Your task to perform on an android device: Search for sushi restaurants on Maps Image 0: 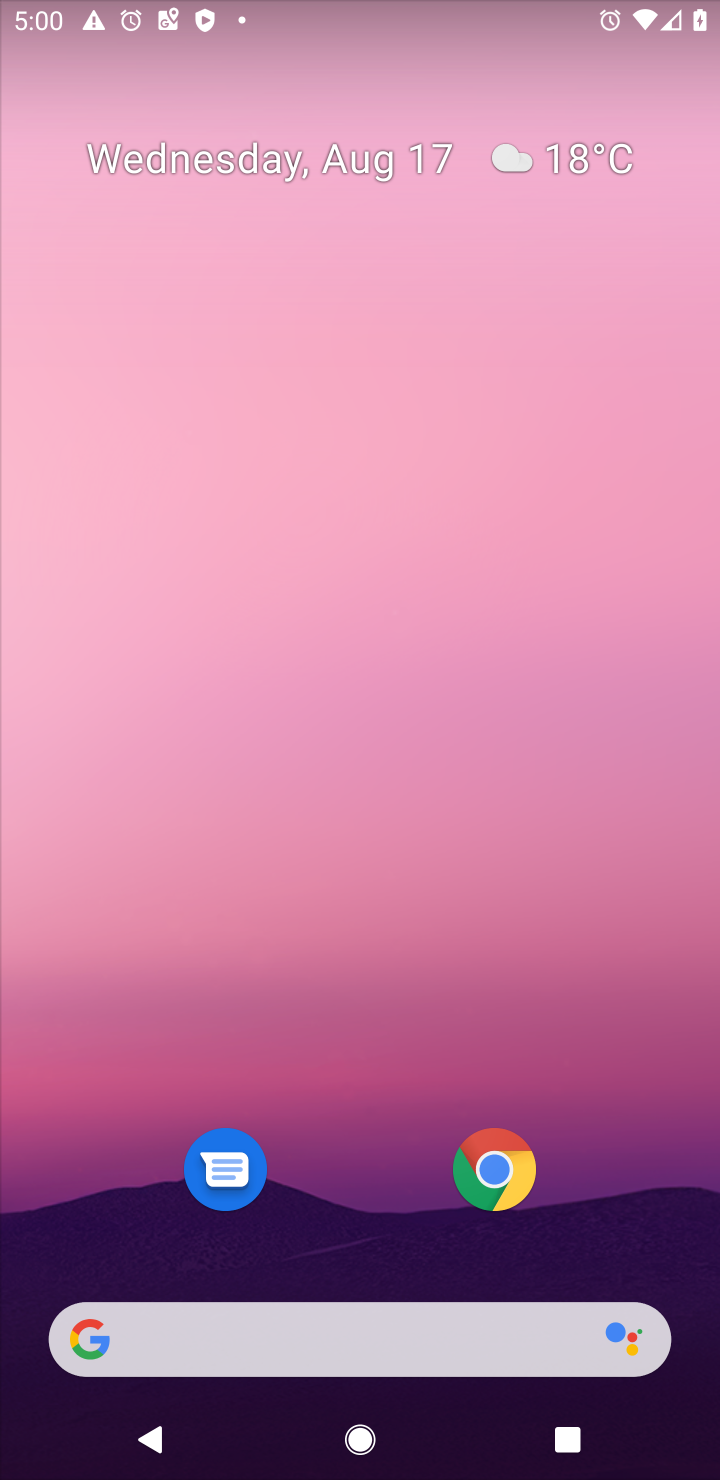
Step 0: press home button
Your task to perform on an android device: Search for sushi restaurants on Maps Image 1: 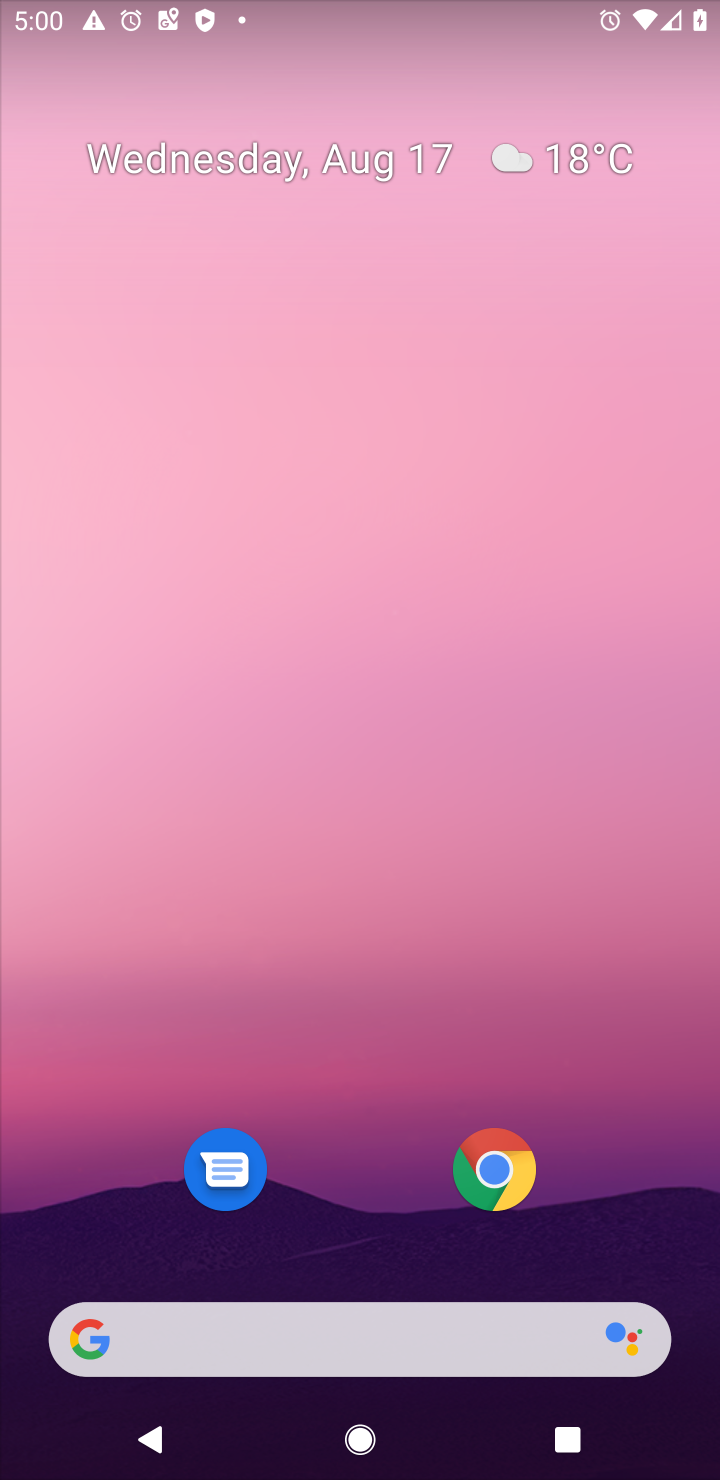
Step 1: drag from (362, 1075) to (407, 120)
Your task to perform on an android device: Search for sushi restaurants on Maps Image 2: 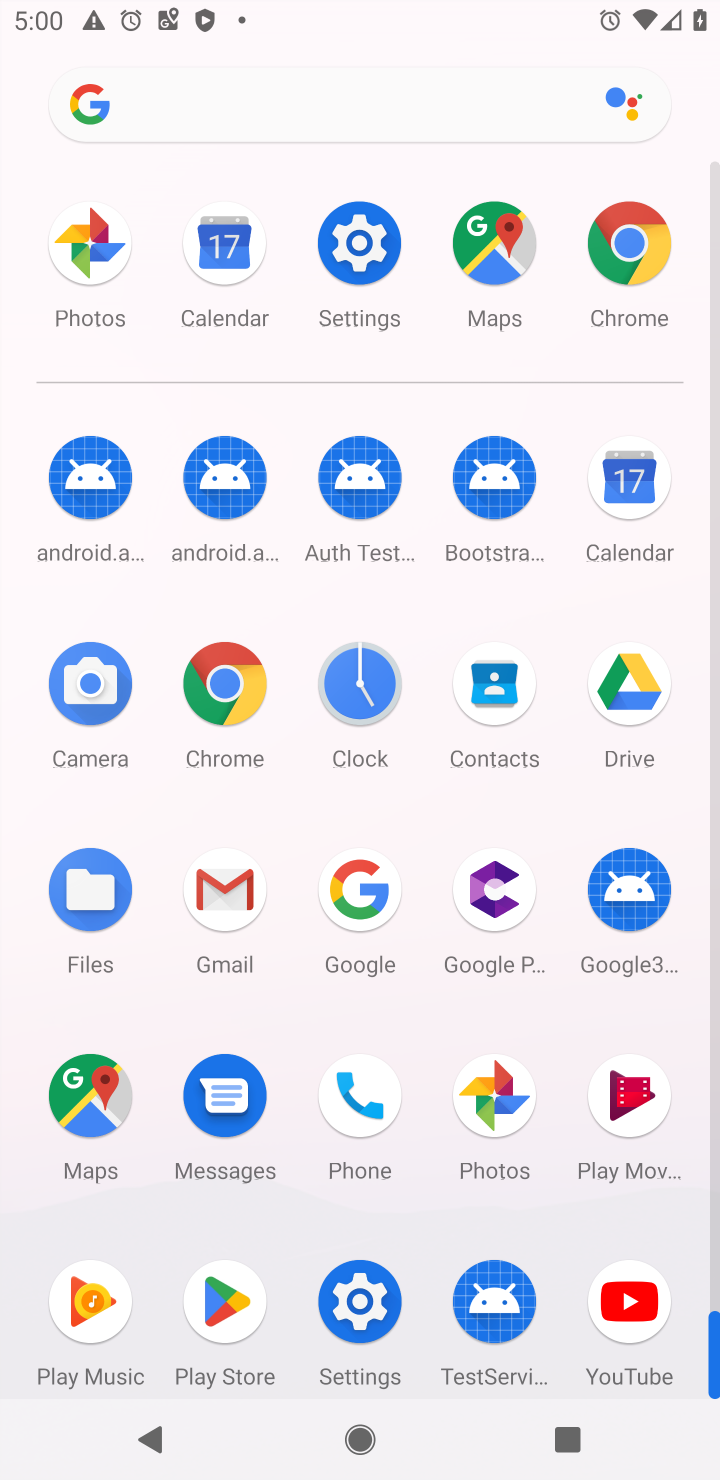
Step 2: click (59, 1089)
Your task to perform on an android device: Search for sushi restaurants on Maps Image 3: 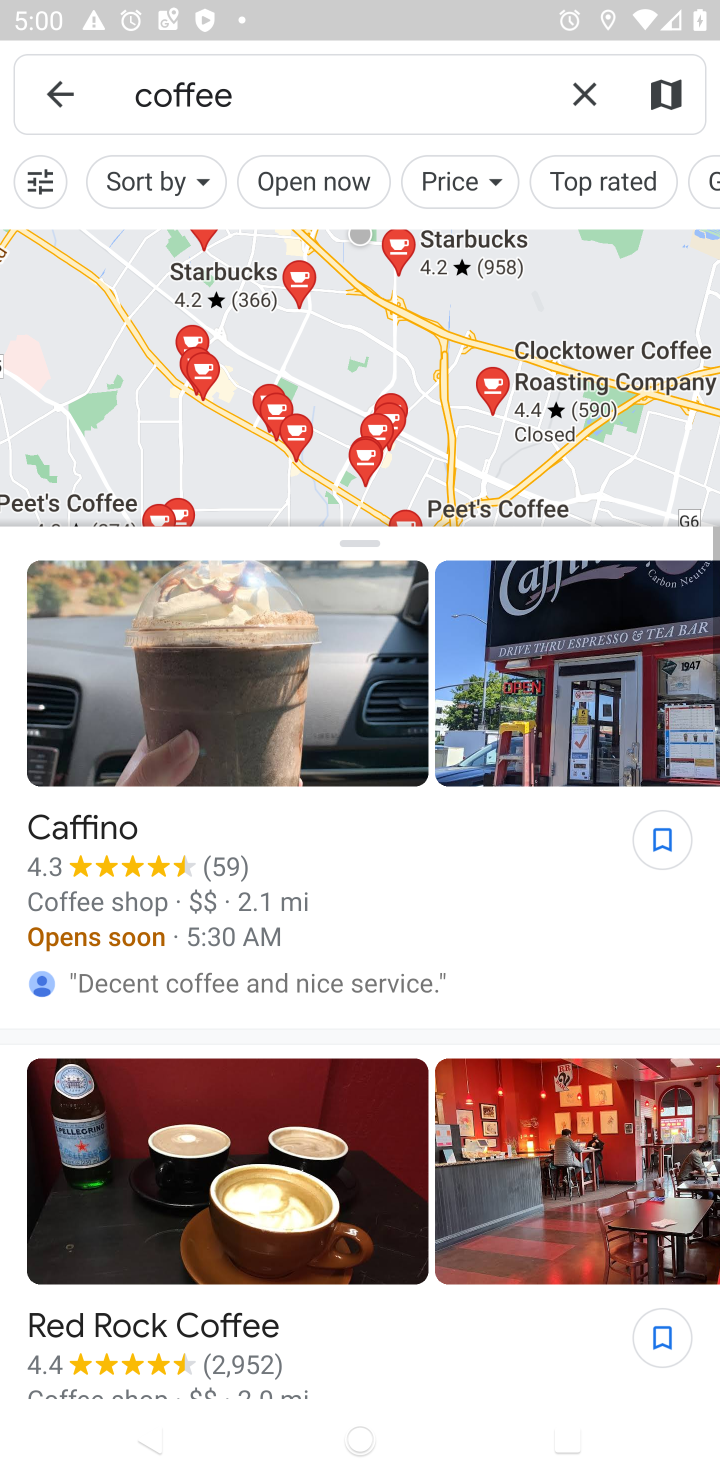
Step 3: click (593, 90)
Your task to perform on an android device: Search for sushi restaurants on Maps Image 4: 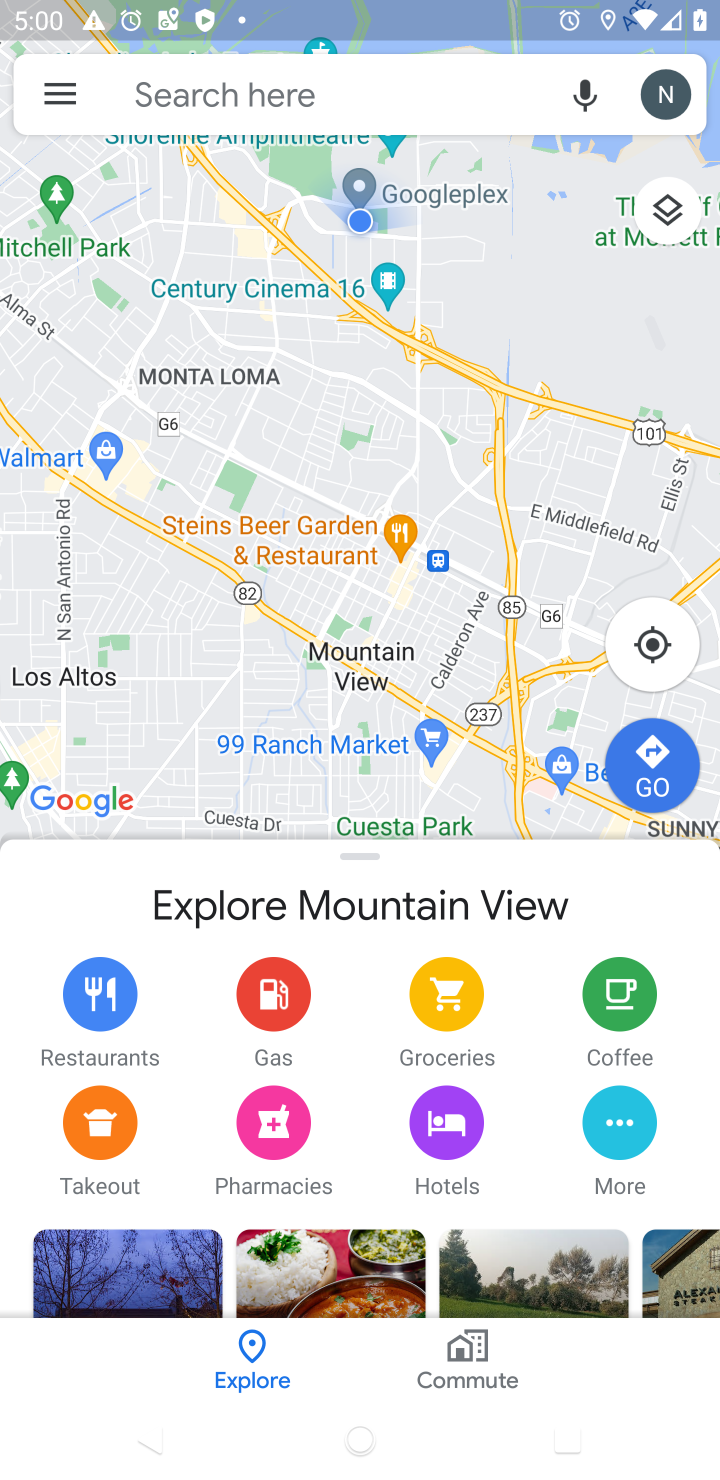
Step 4: click (269, 82)
Your task to perform on an android device: Search for sushi restaurants on Maps Image 5: 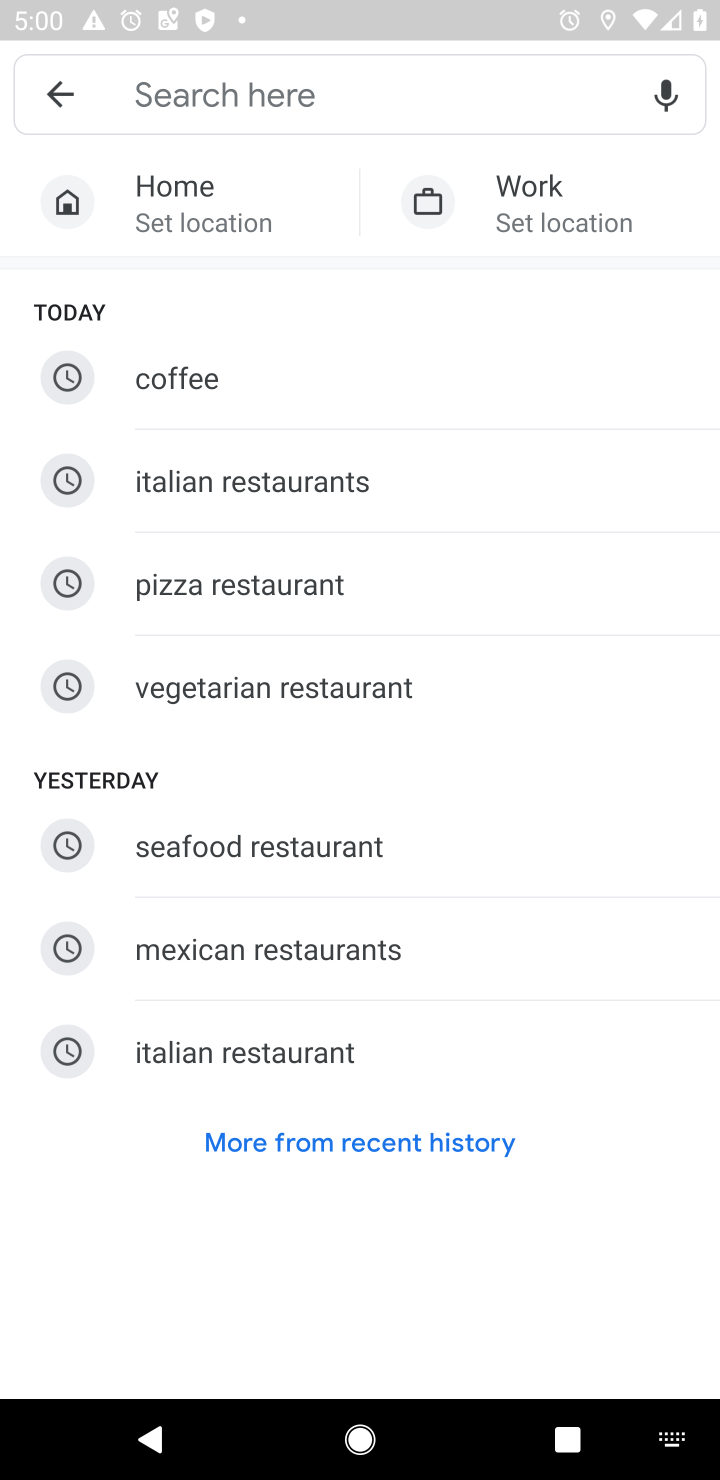
Step 5: type "sushi restaurants "
Your task to perform on an android device: Search for sushi restaurants on Maps Image 6: 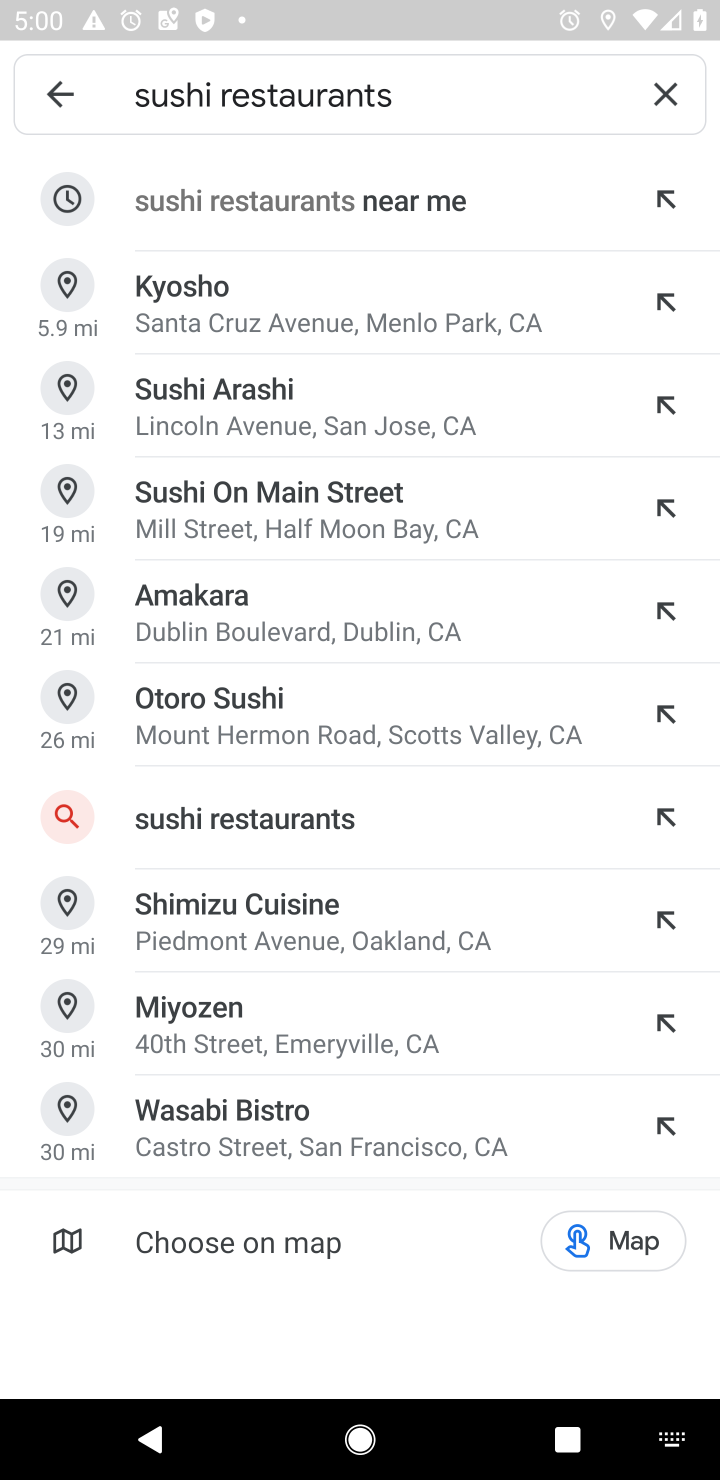
Step 6: click (237, 205)
Your task to perform on an android device: Search for sushi restaurants on Maps Image 7: 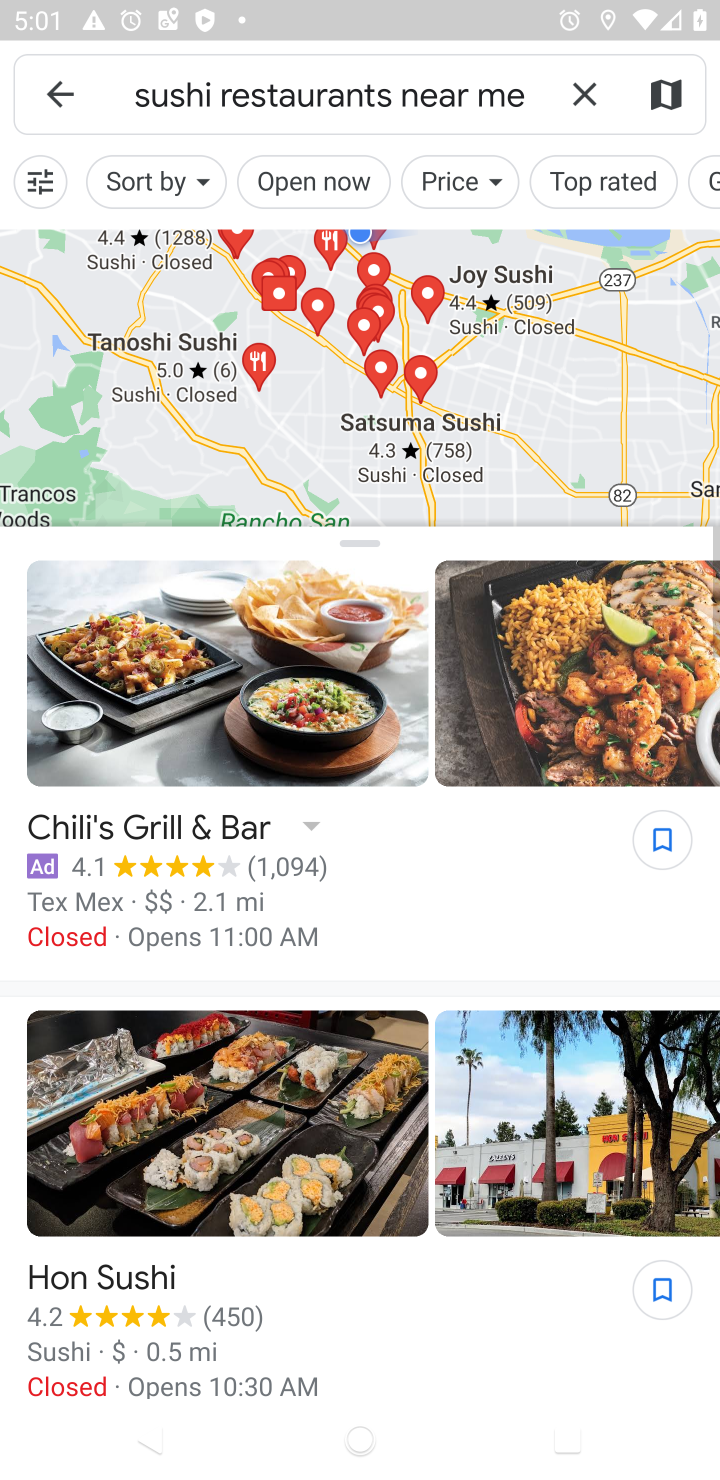
Step 7: task complete